Your task to perform on an android device: toggle priority inbox in the gmail app Image 0: 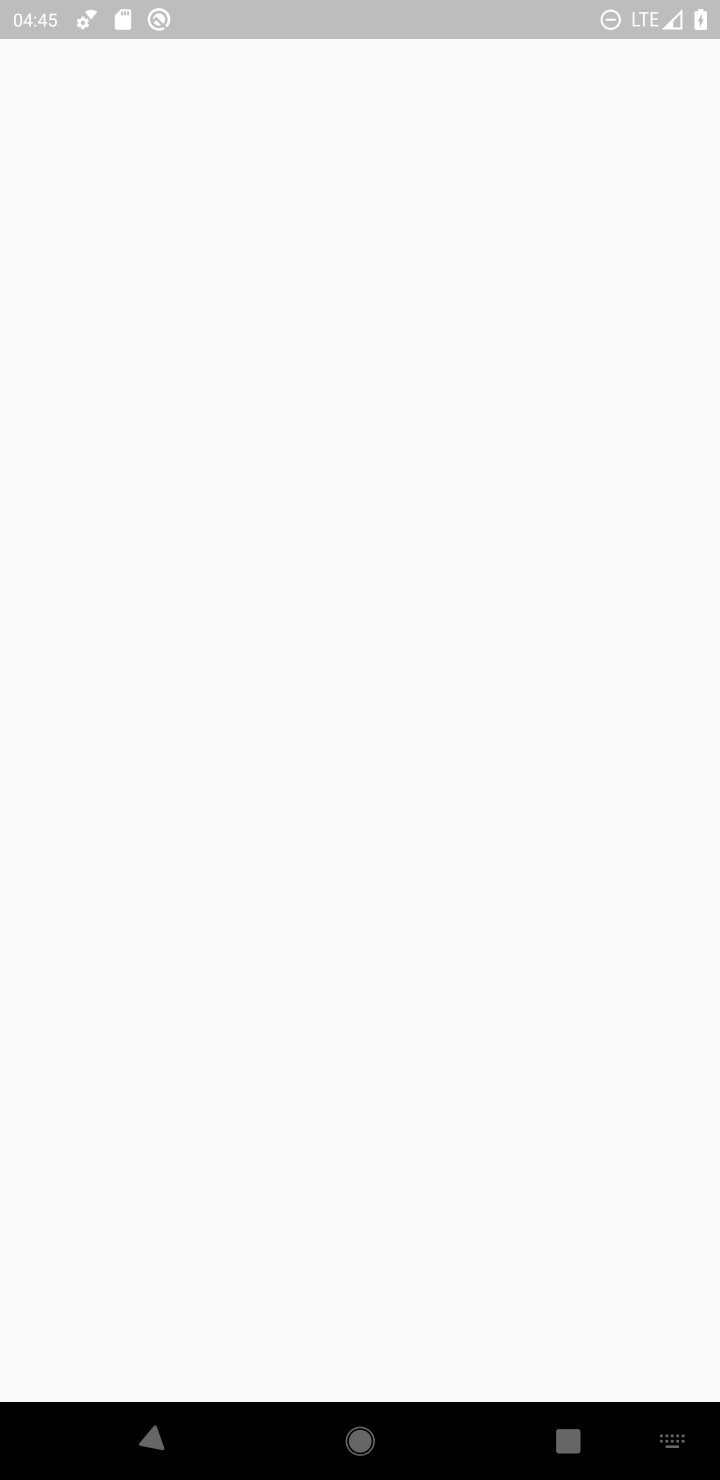
Step 0: press home button
Your task to perform on an android device: toggle priority inbox in the gmail app Image 1: 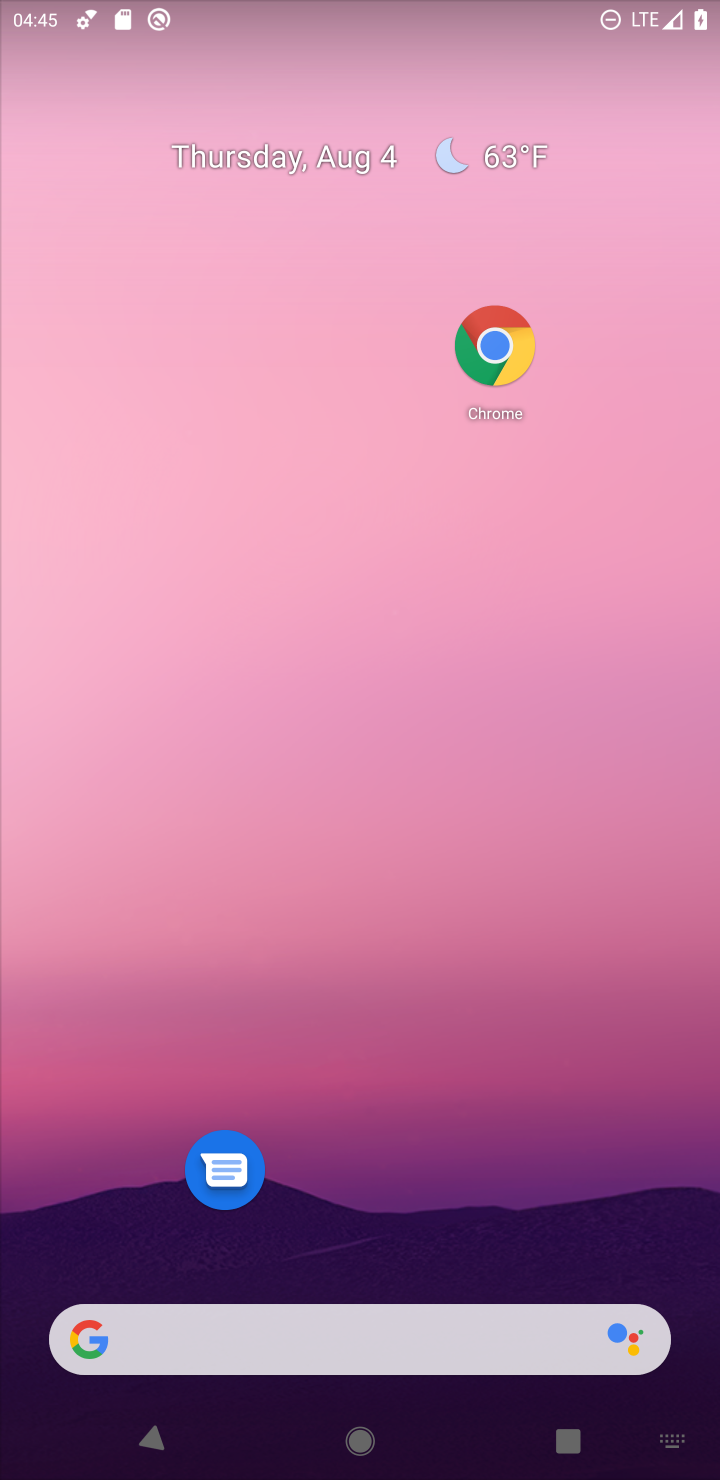
Step 1: drag from (600, 1209) to (553, 315)
Your task to perform on an android device: toggle priority inbox in the gmail app Image 2: 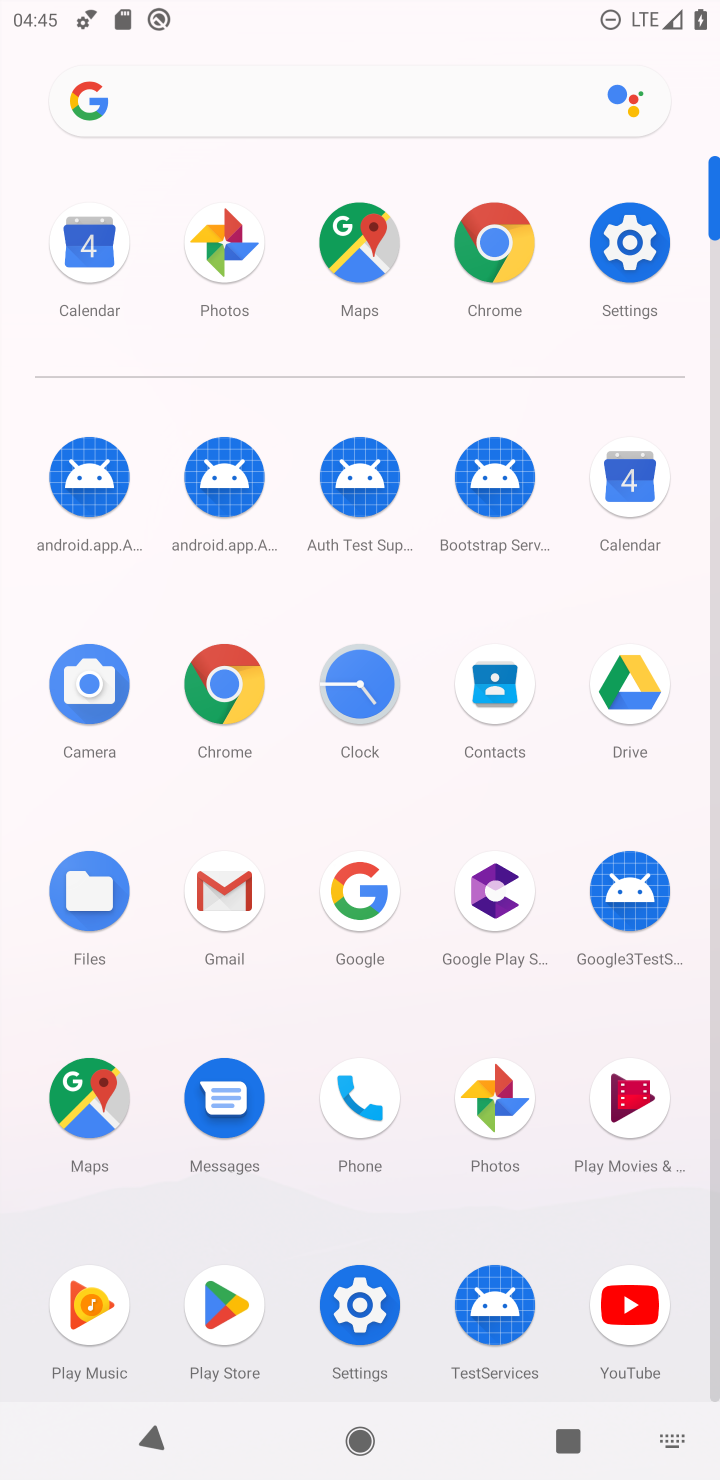
Step 2: click (249, 894)
Your task to perform on an android device: toggle priority inbox in the gmail app Image 3: 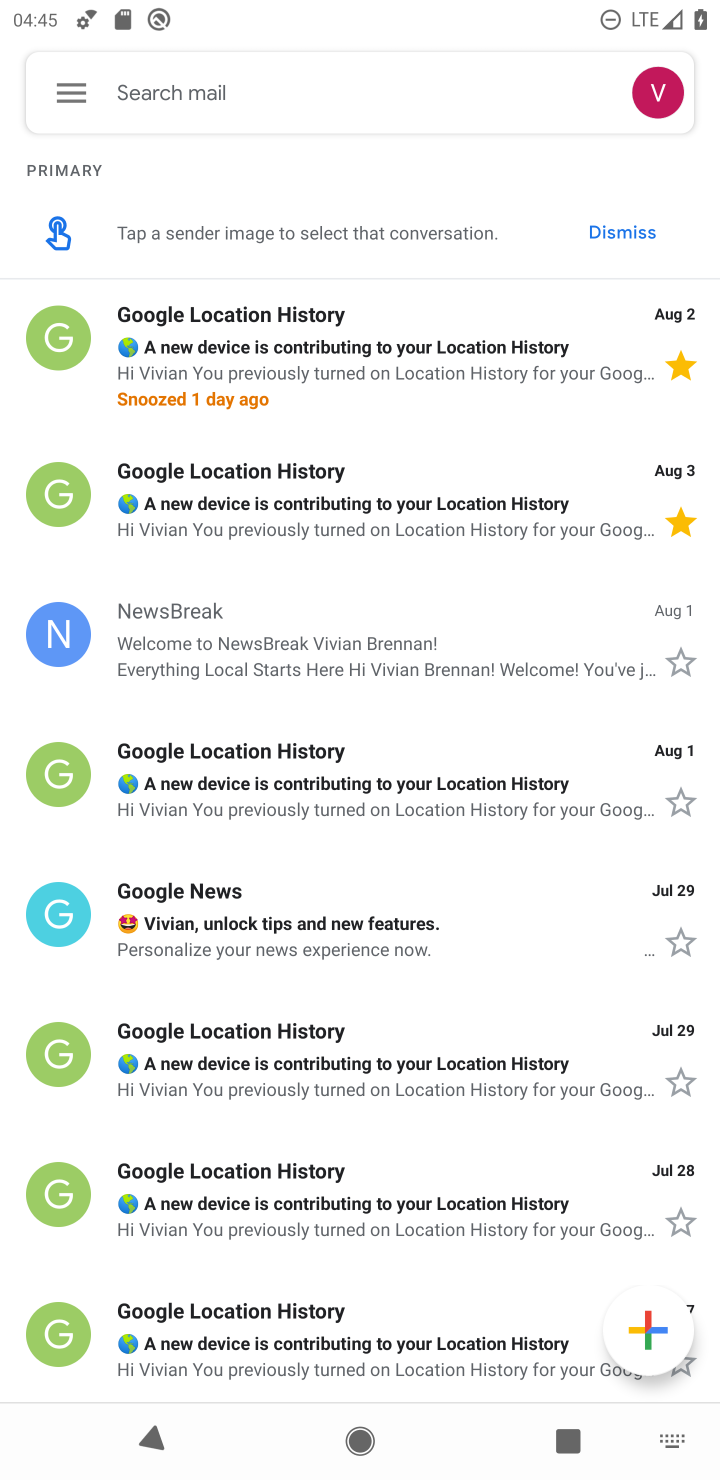
Step 3: click (69, 76)
Your task to perform on an android device: toggle priority inbox in the gmail app Image 4: 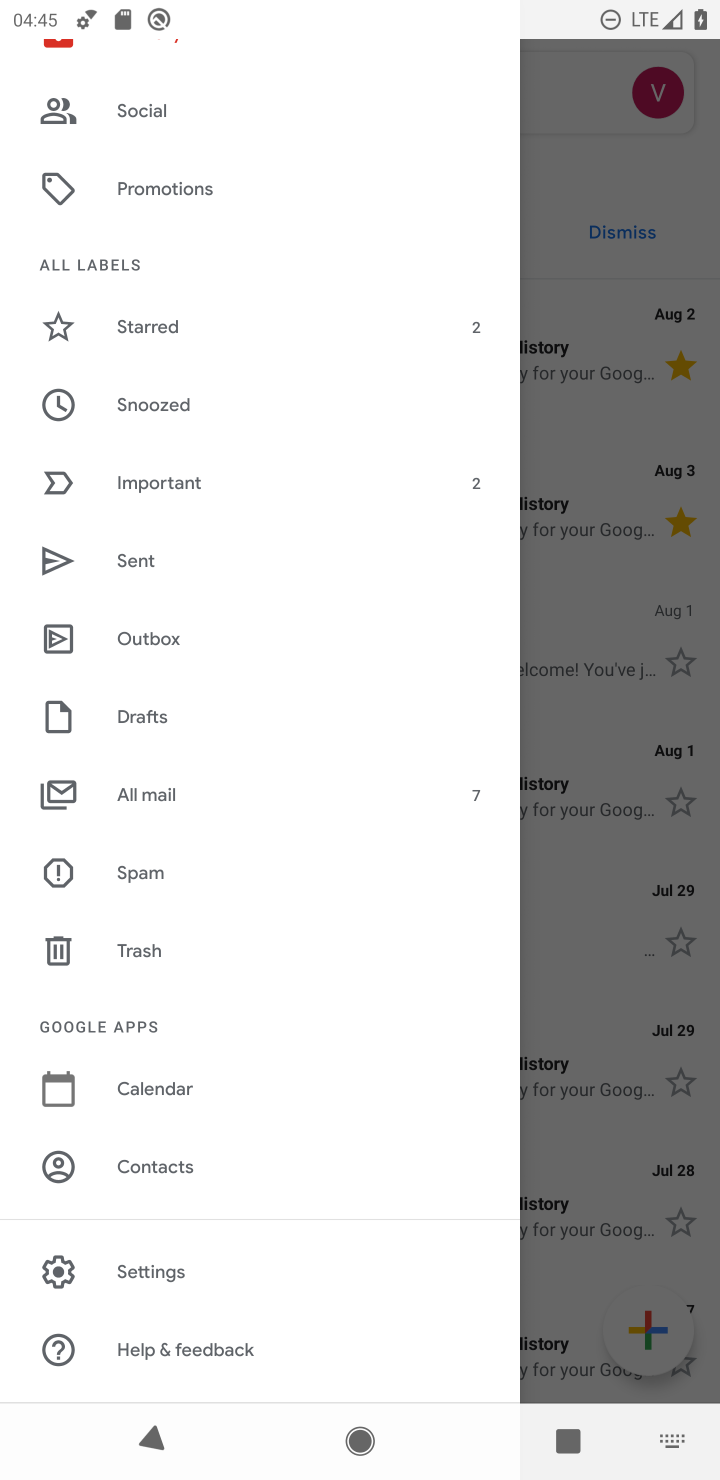
Step 4: click (241, 1256)
Your task to perform on an android device: toggle priority inbox in the gmail app Image 5: 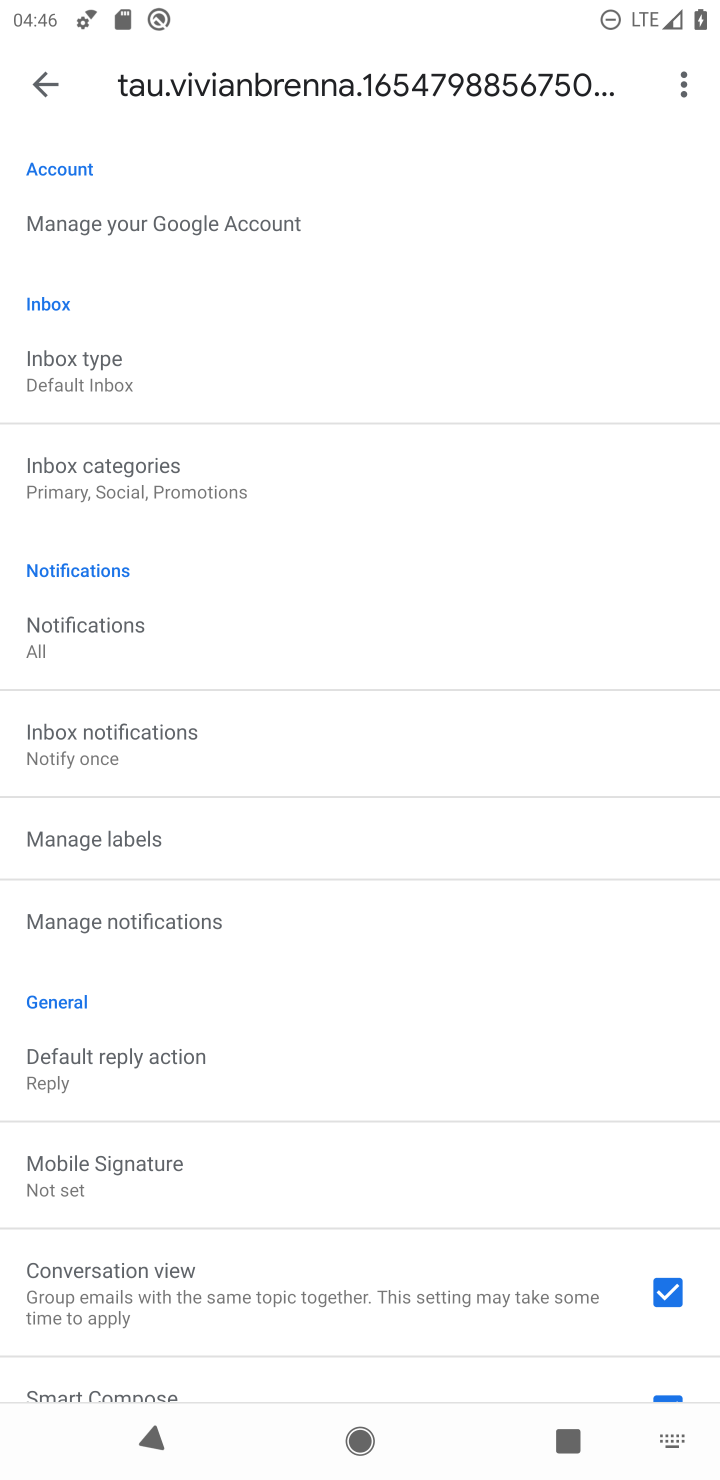
Step 5: click (209, 397)
Your task to perform on an android device: toggle priority inbox in the gmail app Image 6: 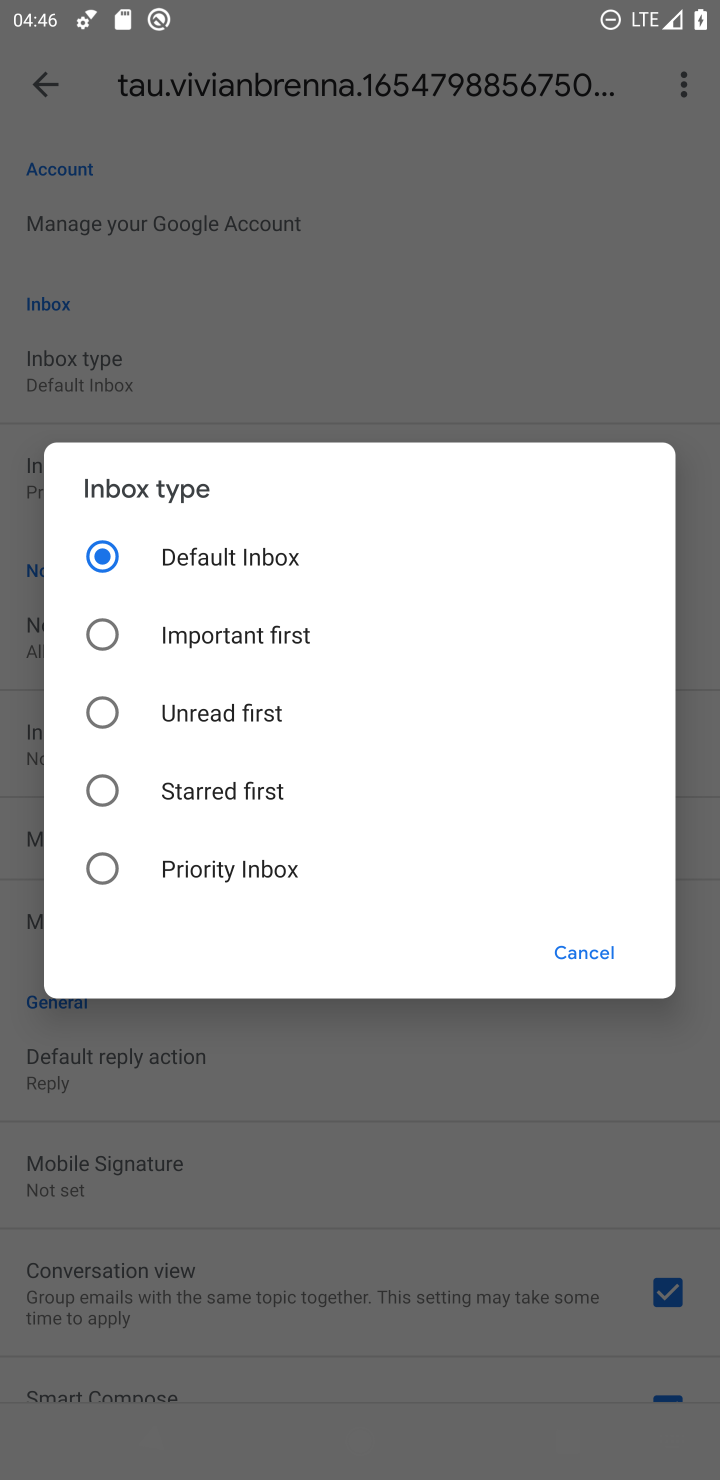
Step 6: click (256, 890)
Your task to perform on an android device: toggle priority inbox in the gmail app Image 7: 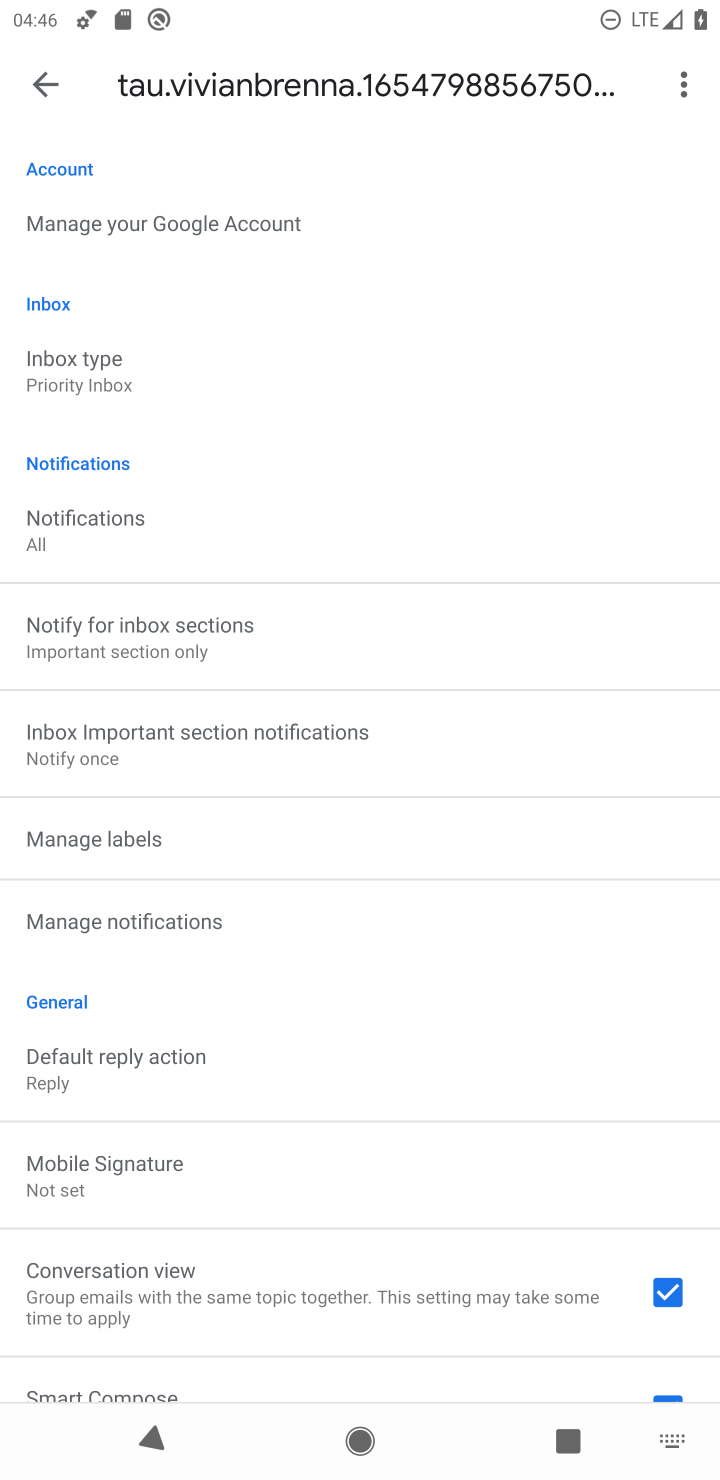
Step 7: task complete